Your task to perform on an android device: visit the assistant section in the google photos Image 0: 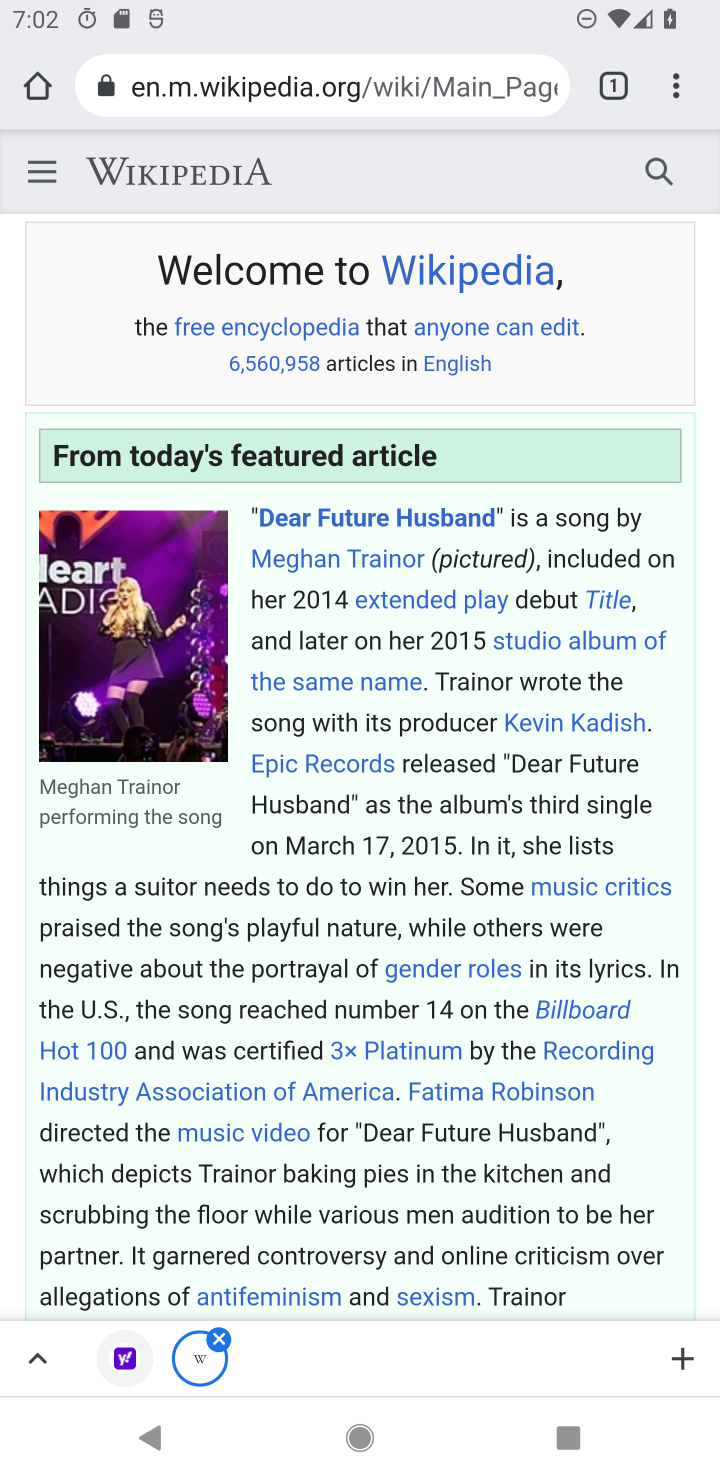
Step 0: drag from (344, 981) to (368, 386)
Your task to perform on an android device: visit the assistant section in the google photos Image 1: 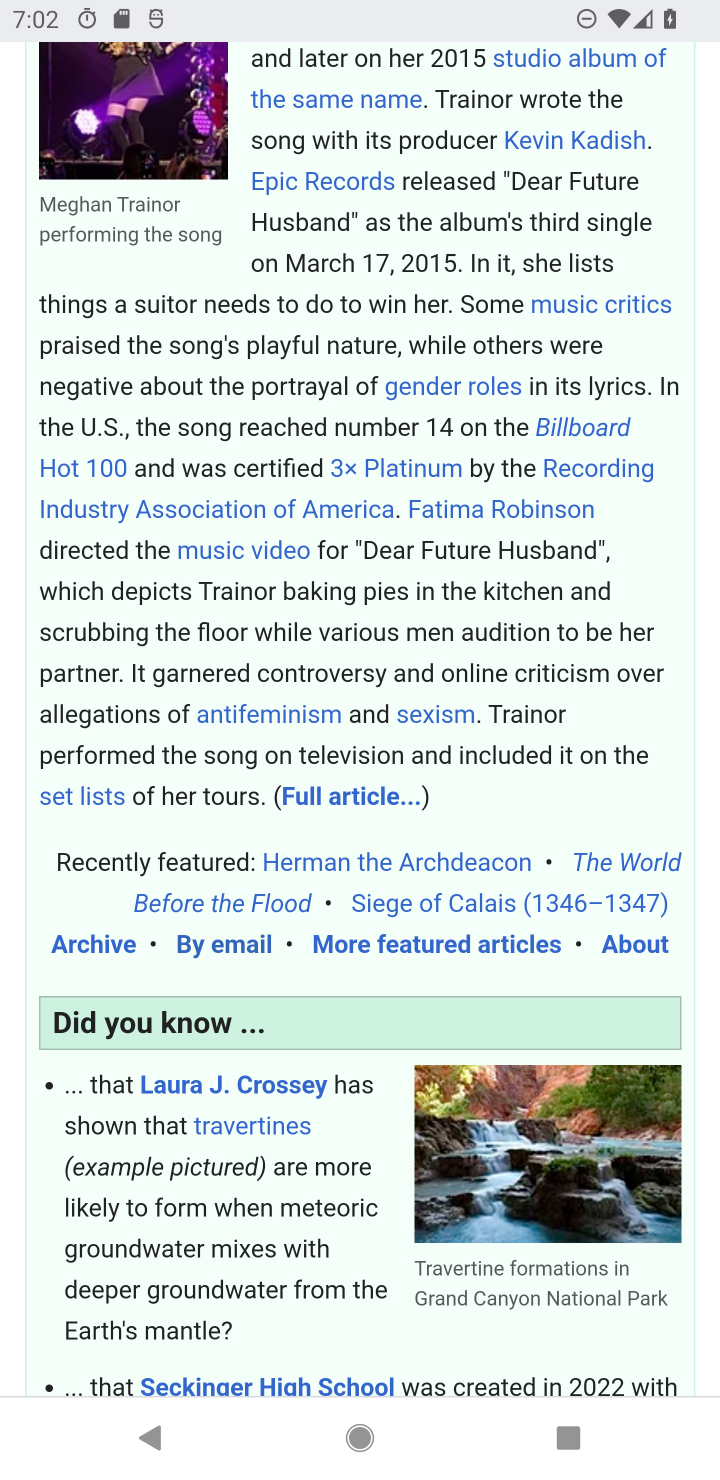
Step 1: drag from (367, 1054) to (488, 1434)
Your task to perform on an android device: visit the assistant section in the google photos Image 2: 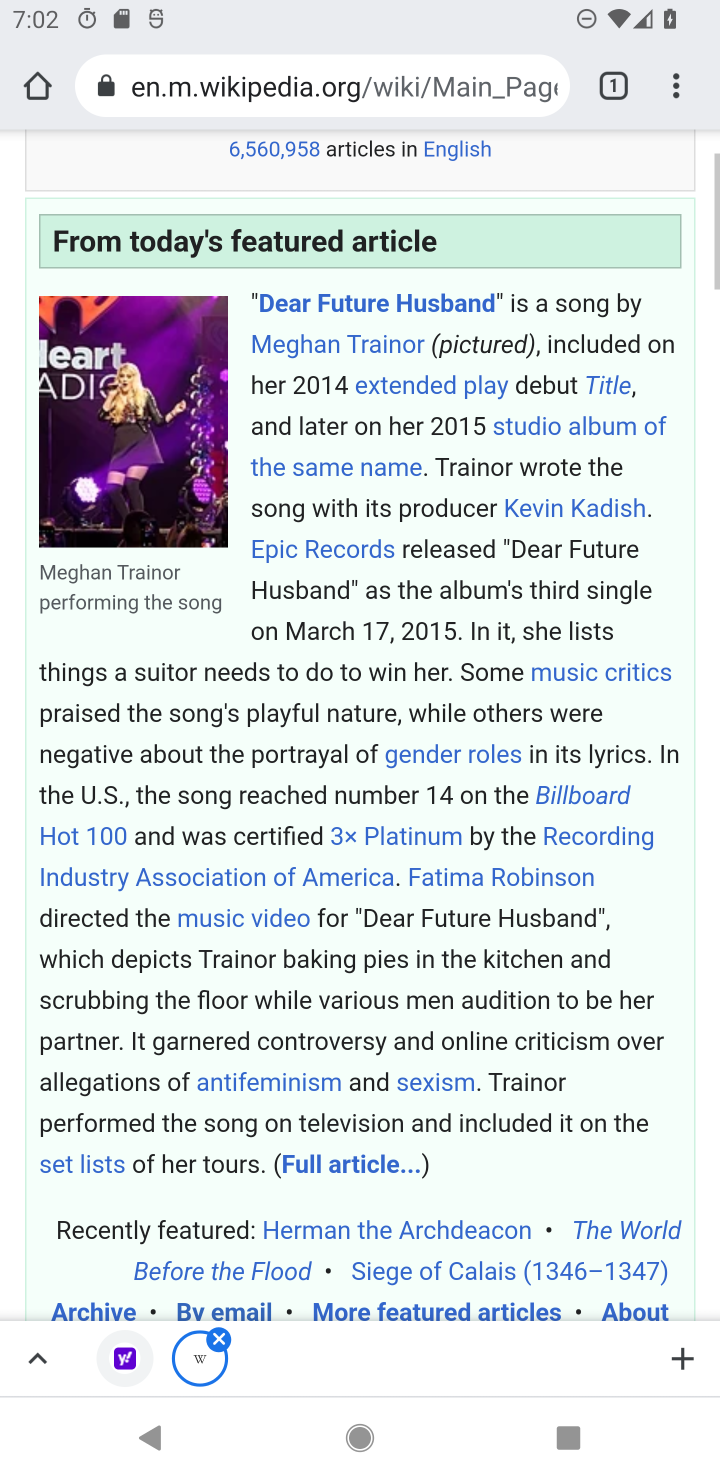
Step 2: press home button
Your task to perform on an android device: visit the assistant section in the google photos Image 3: 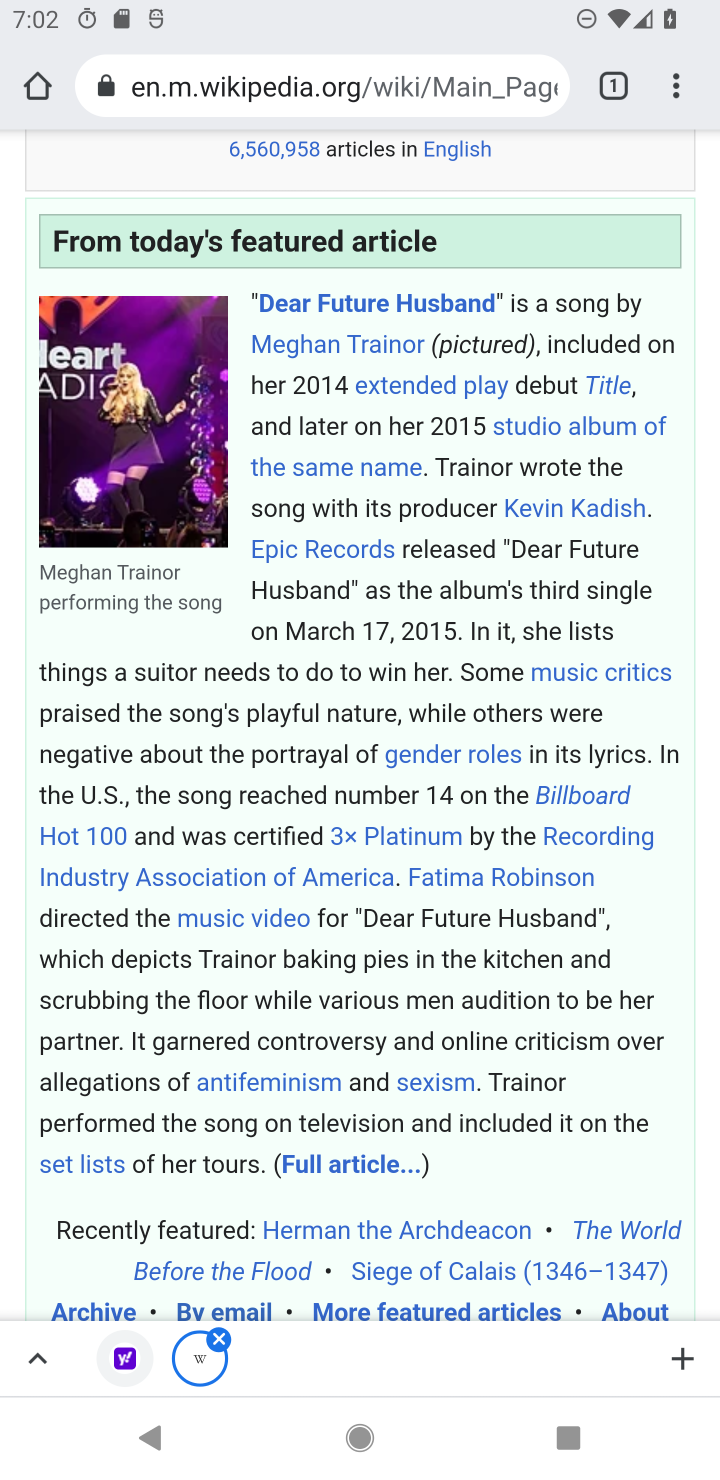
Step 3: click (696, 880)
Your task to perform on an android device: visit the assistant section in the google photos Image 4: 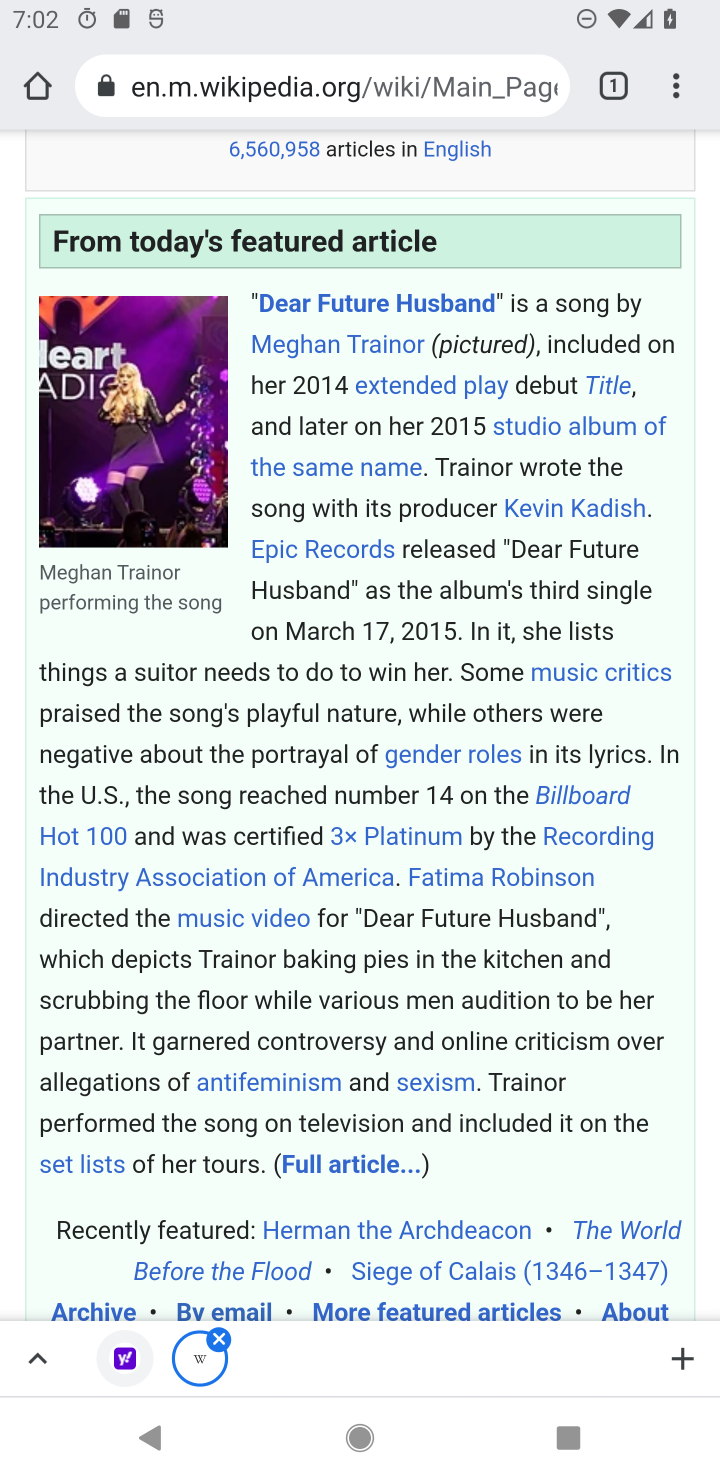
Step 4: drag from (407, 899) to (463, 131)
Your task to perform on an android device: visit the assistant section in the google photos Image 5: 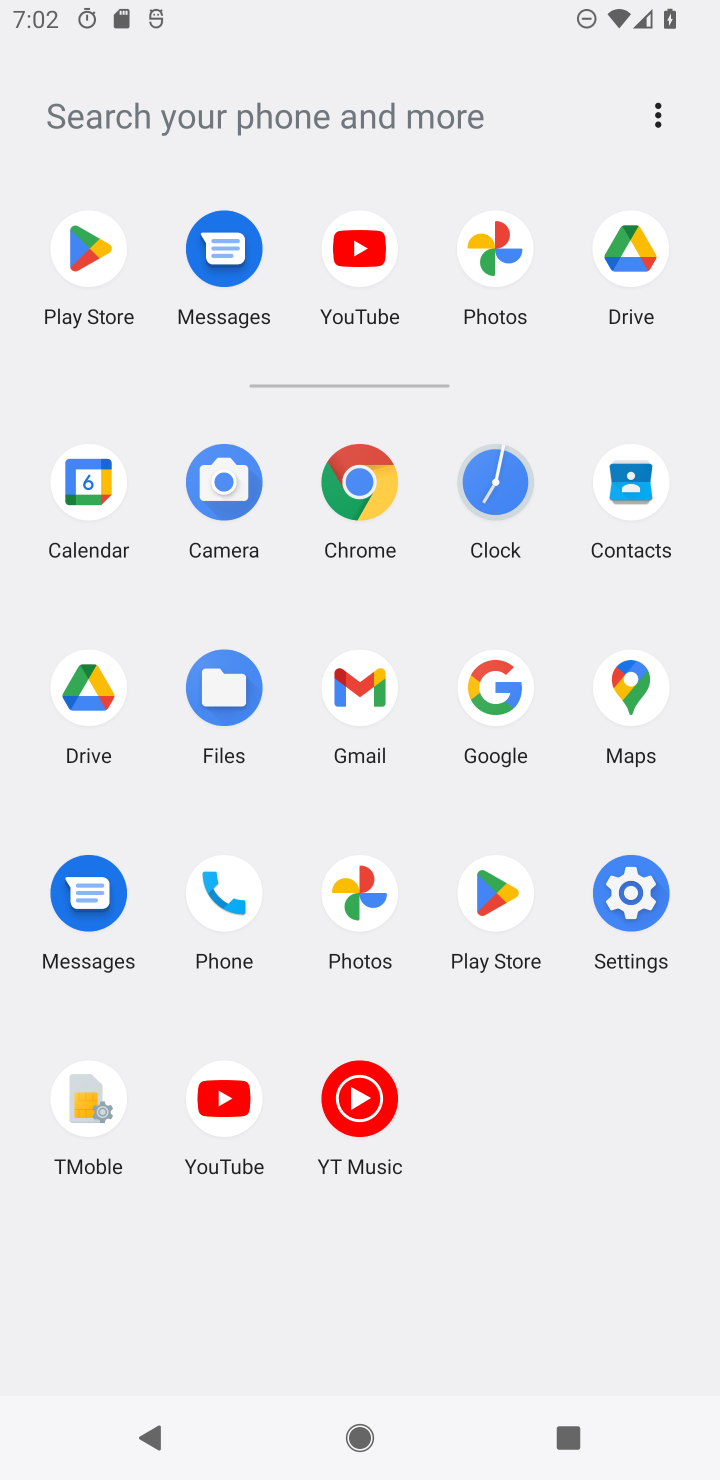
Step 5: drag from (405, 1139) to (469, 219)
Your task to perform on an android device: visit the assistant section in the google photos Image 6: 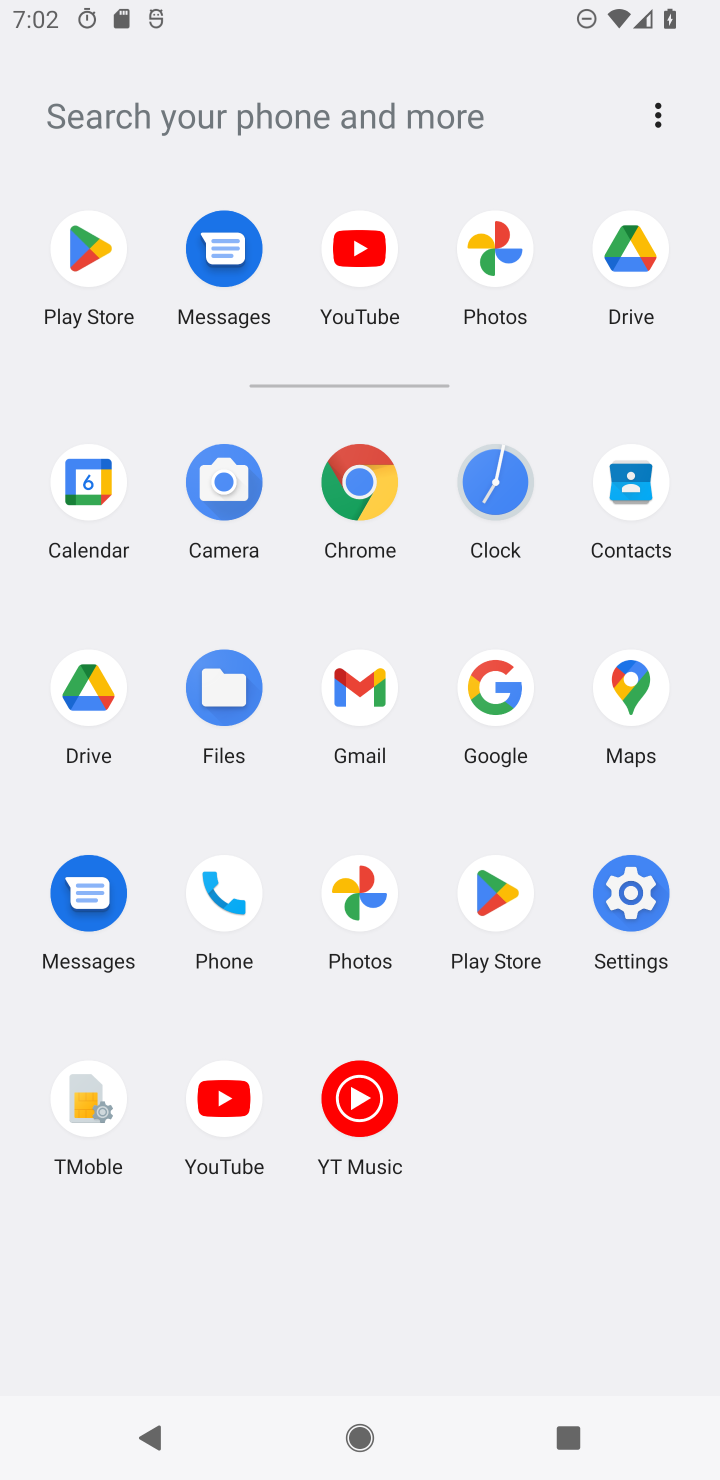
Step 6: click (348, 900)
Your task to perform on an android device: visit the assistant section in the google photos Image 7: 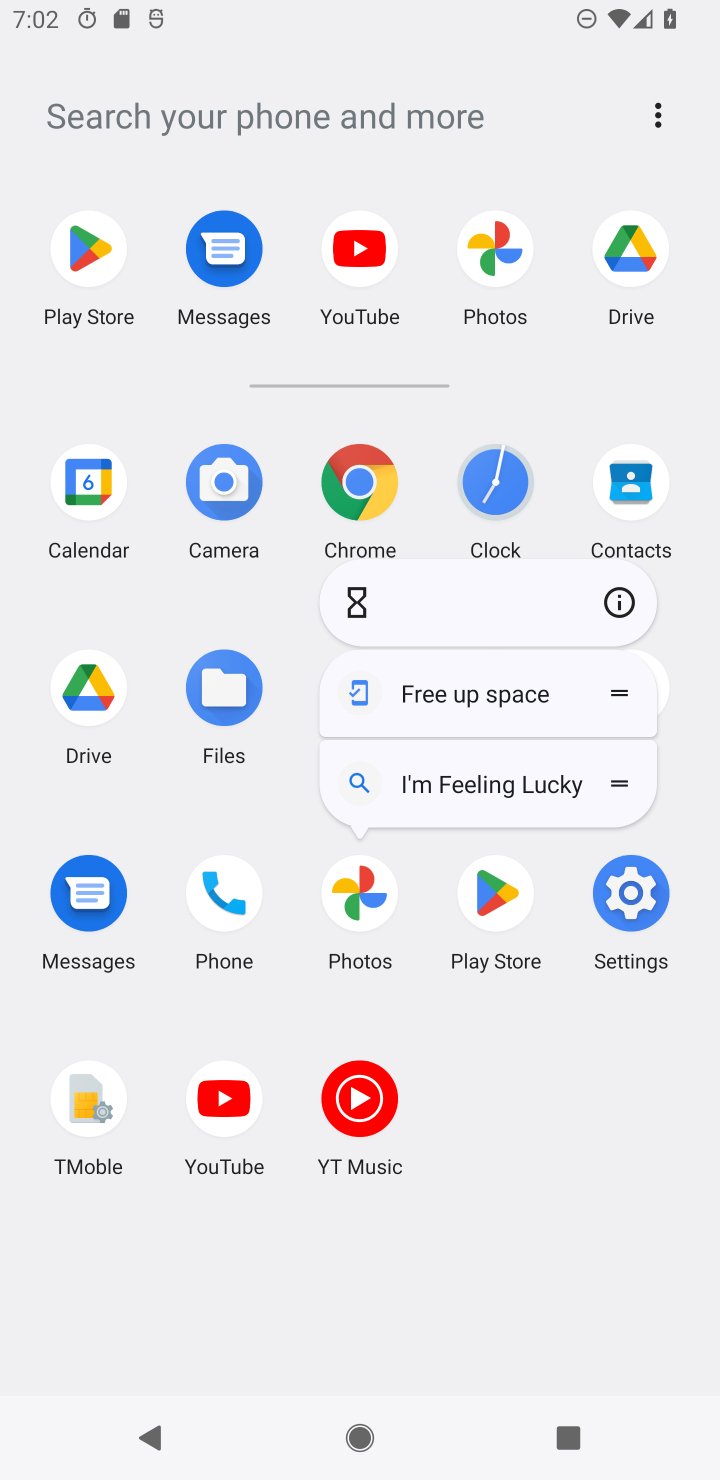
Step 7: click (606, 599)
Your task to perform on an android device: visit the assistant section in the google photos Image 8: 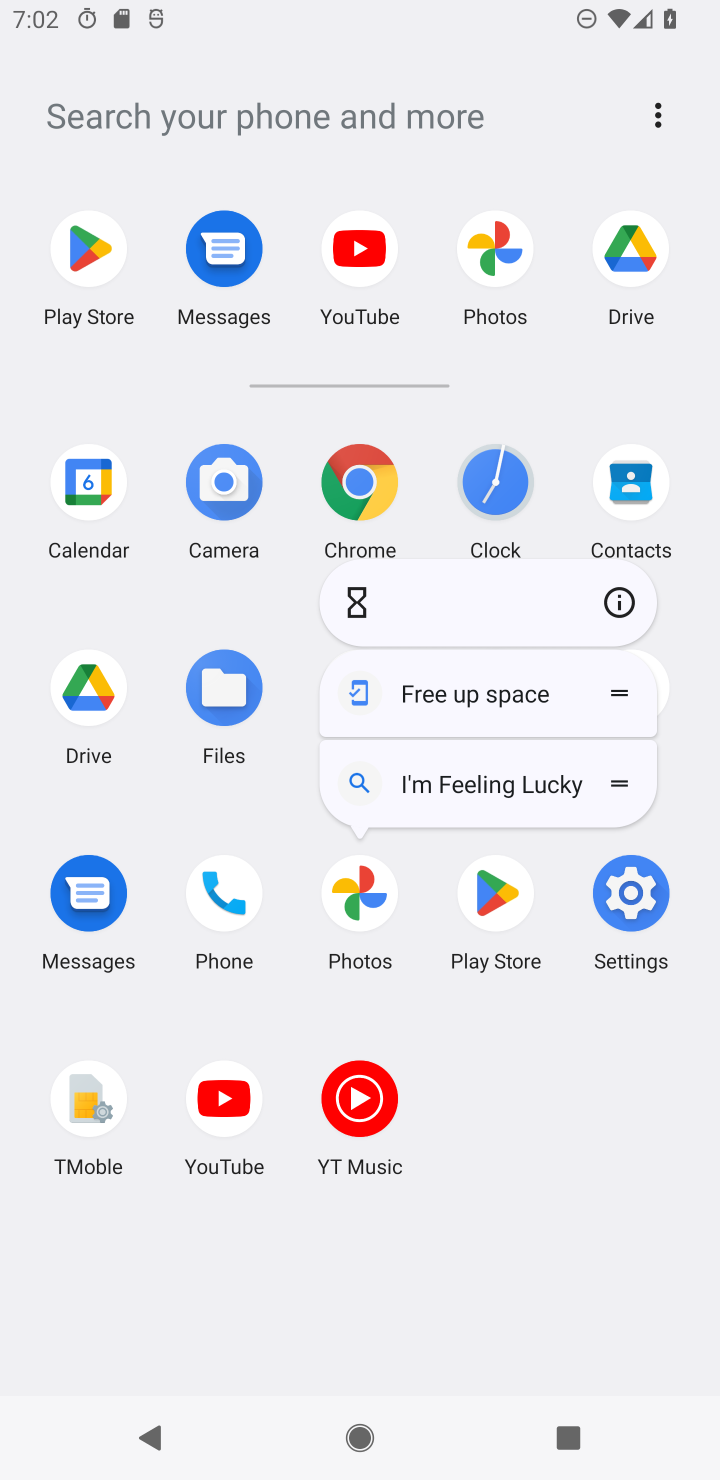
Step 8: click (622, 610)
Your task to perform on an android device: visit the assistant section in the google photos Image 9: 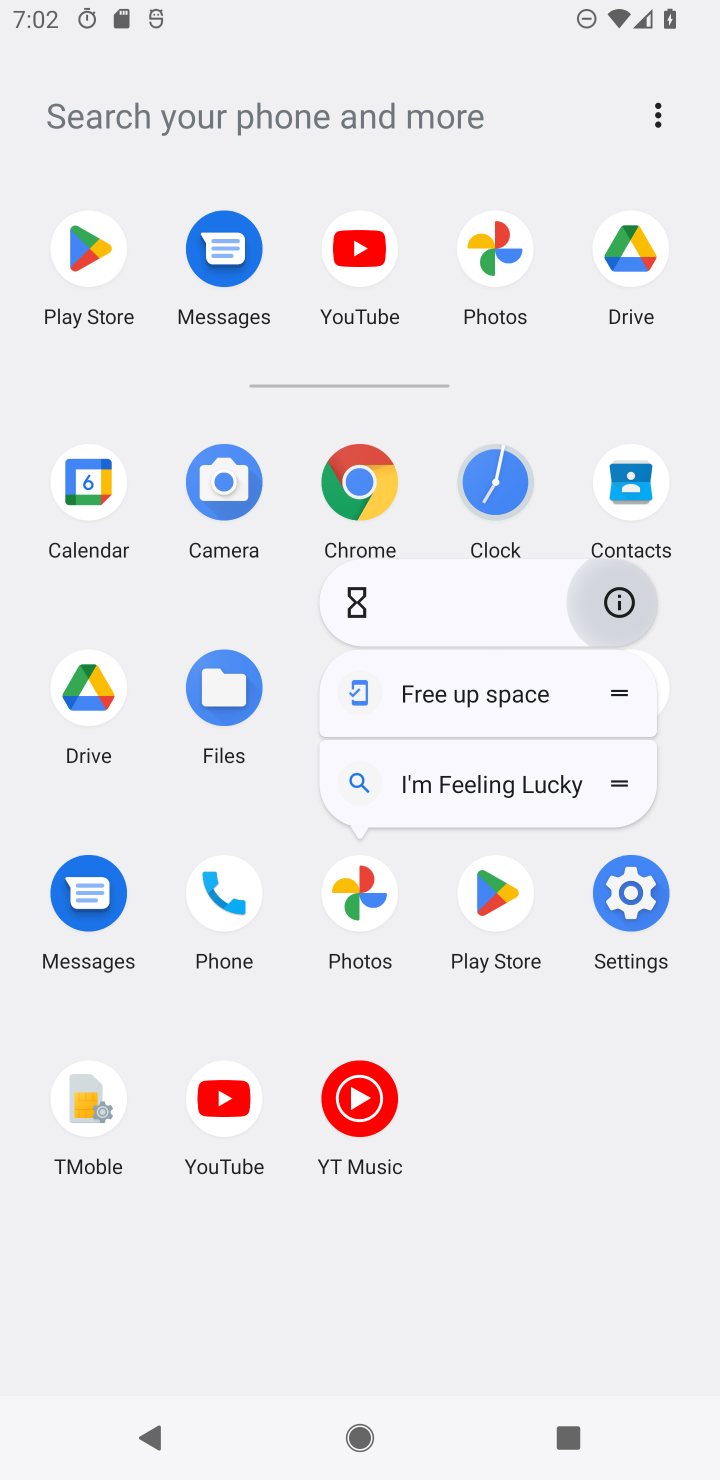
Step 9: click (622, 608)
Your task to perform on an android device: visit the assistant section in the google photos Image 10: 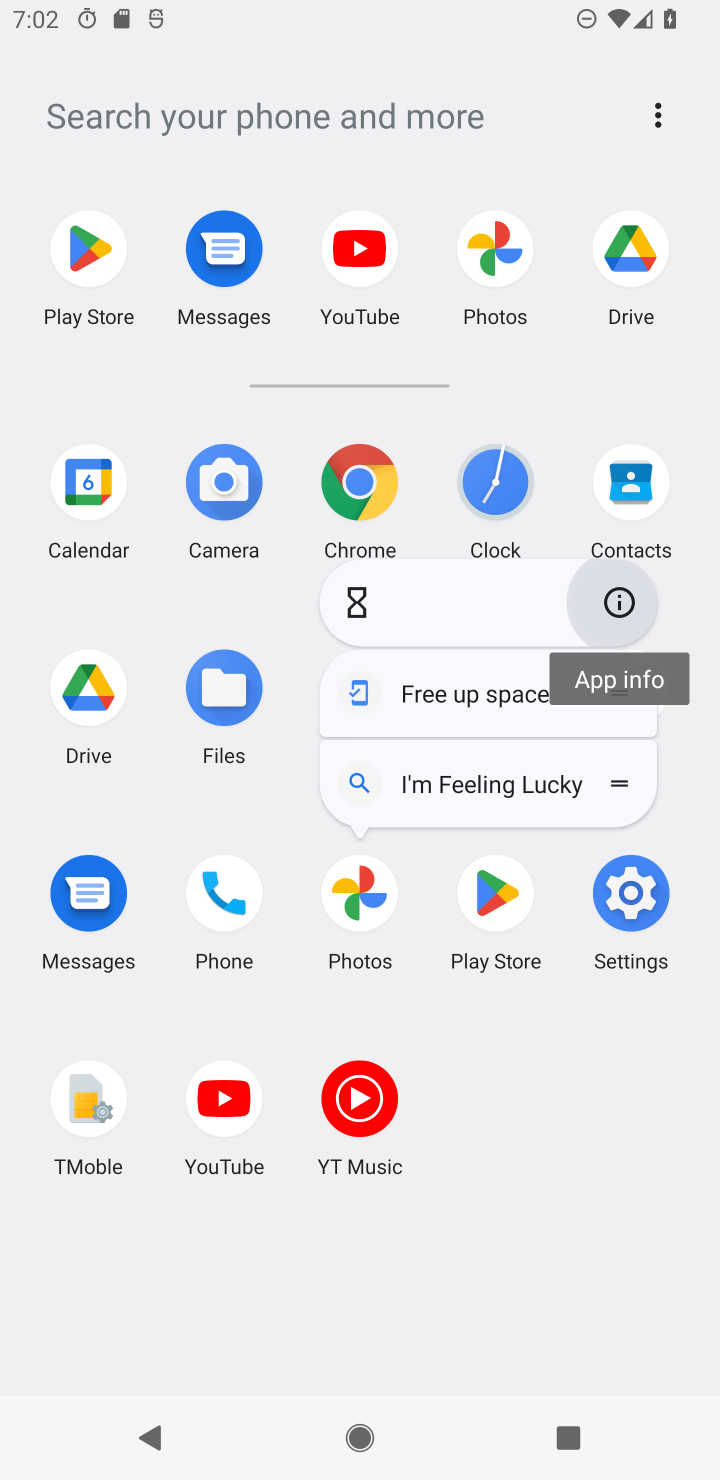
Step 10: click (353, 866)
Your task to perform on an android device: visit the assistant section in the google photos Image 11: 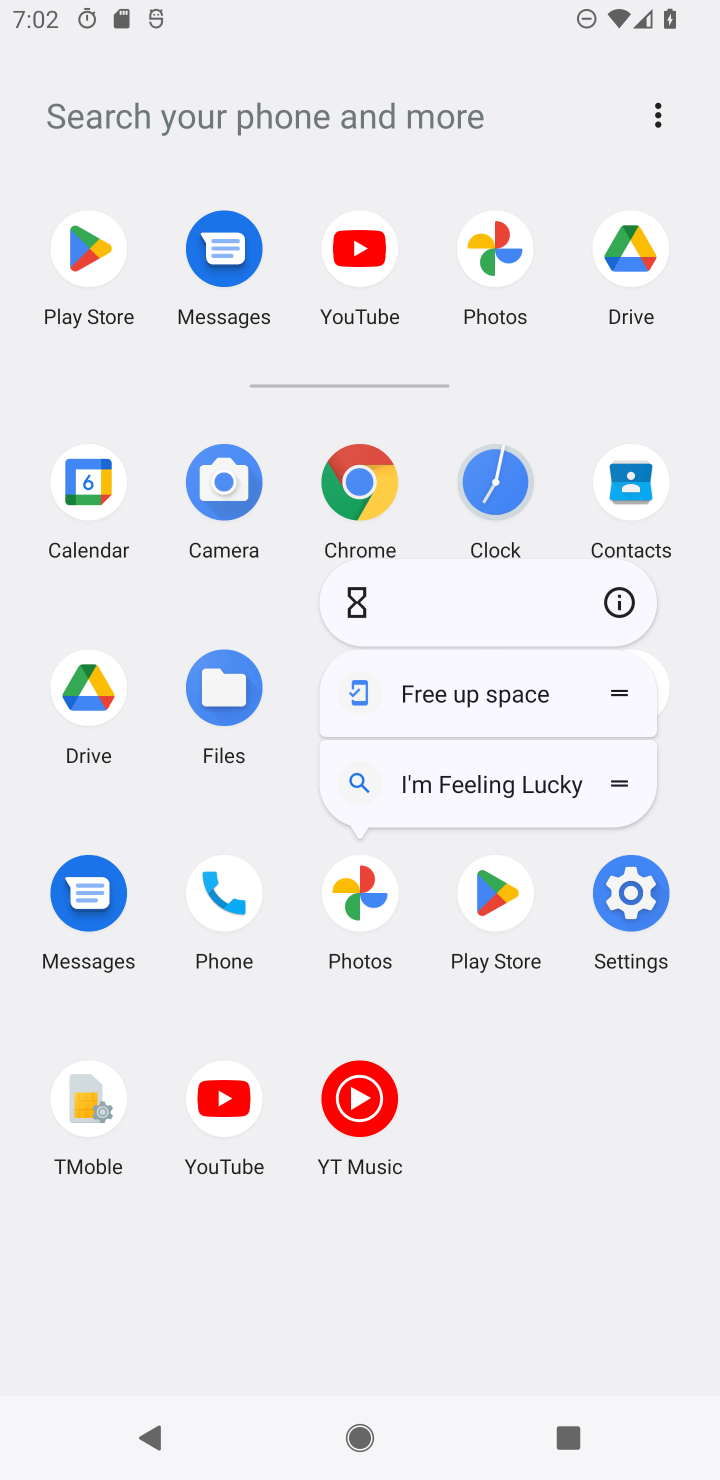
Step 11: click (357, 872)
Your task to perform on an android device: visit the assistant section in the google photos Image 12: 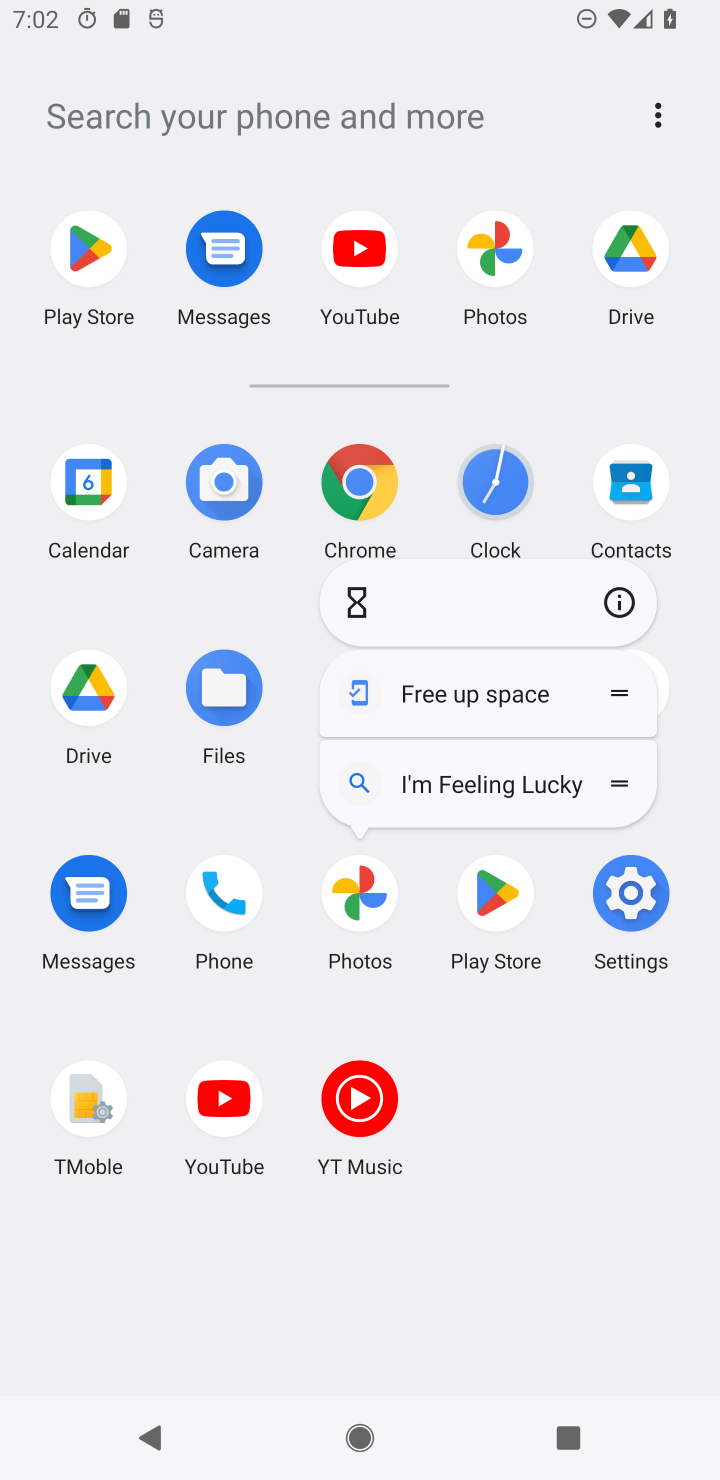
Step 12: click (631, 597)
Your task to perform on an android device: visit the assistant section in the google photos Image 13: 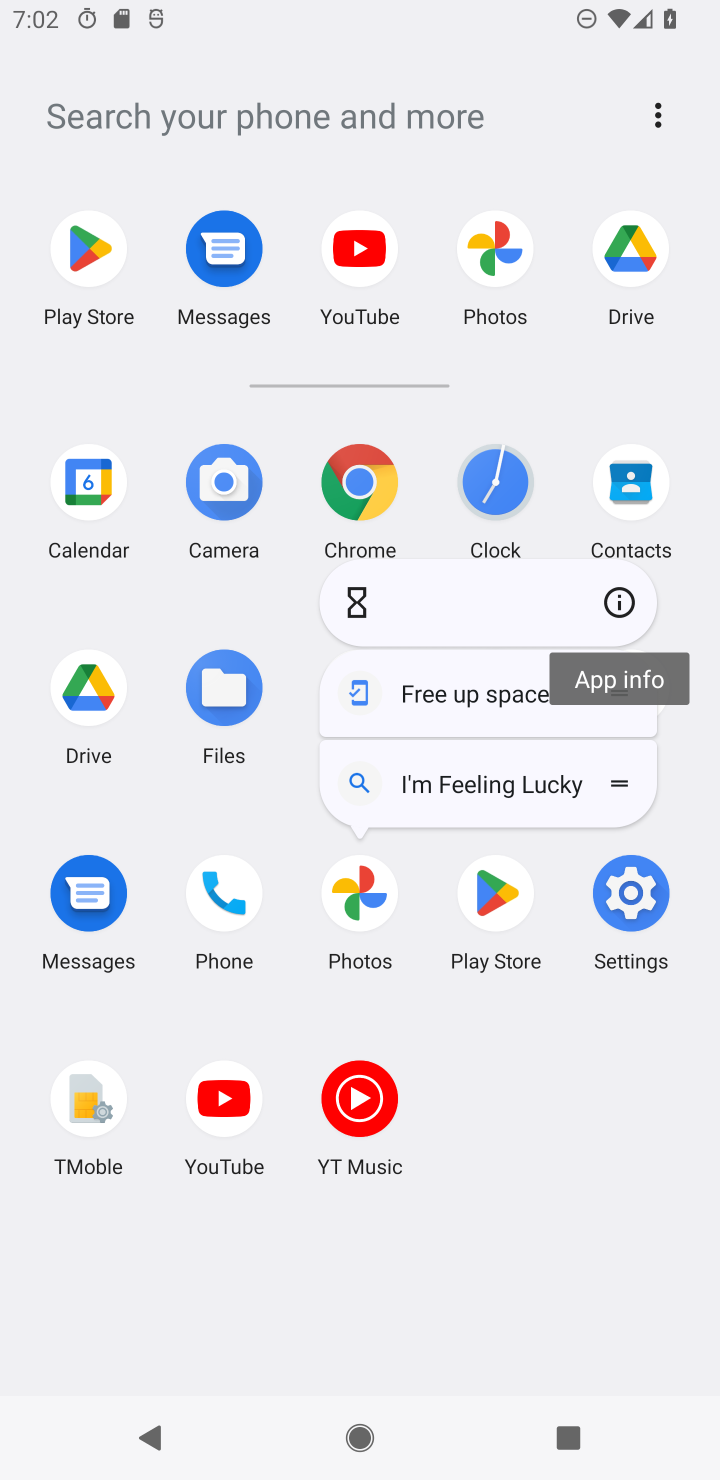
Step 13: click (608, 601)
Your task to perform on an android device: visit the assistant section in the google photos Image 14: 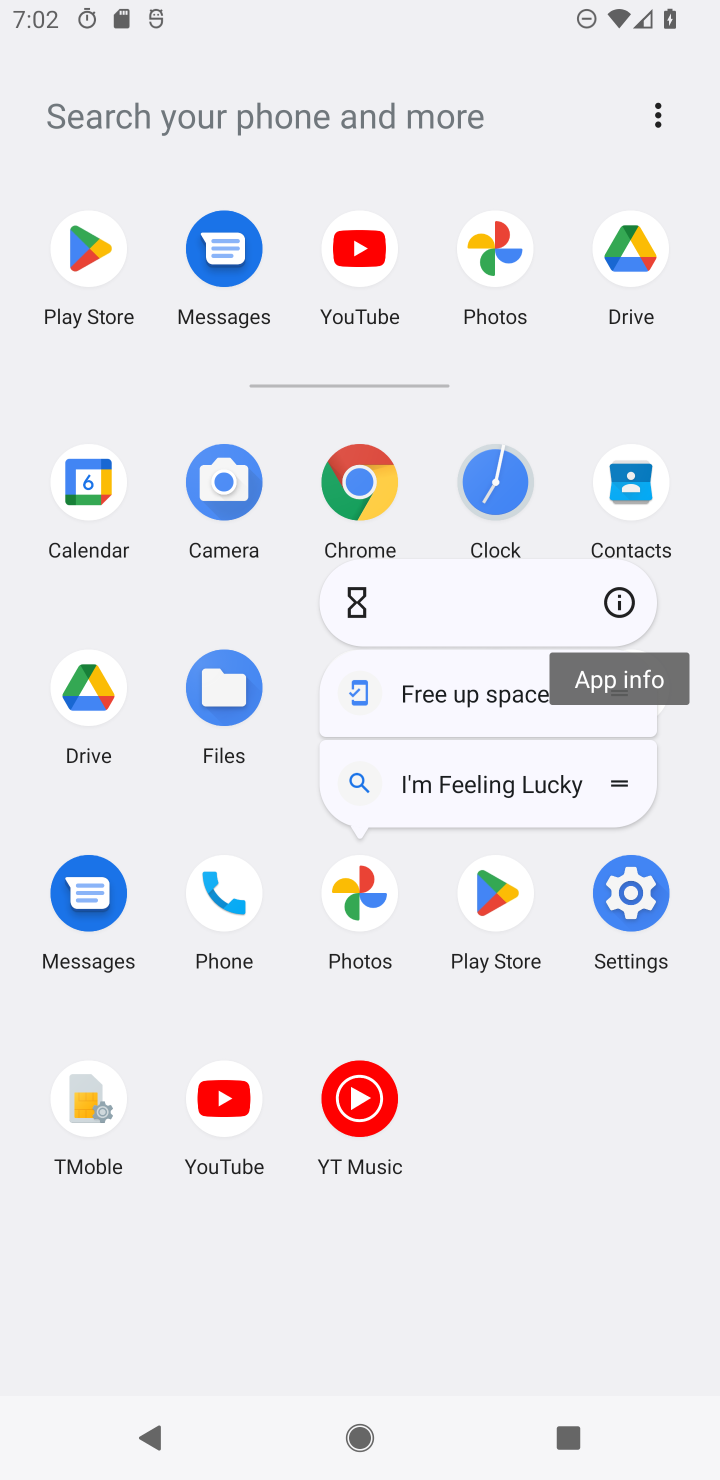
Step 14: click (359, 903)
Your task to perform on an android device: visit the assistant section in the google photos Image 15: 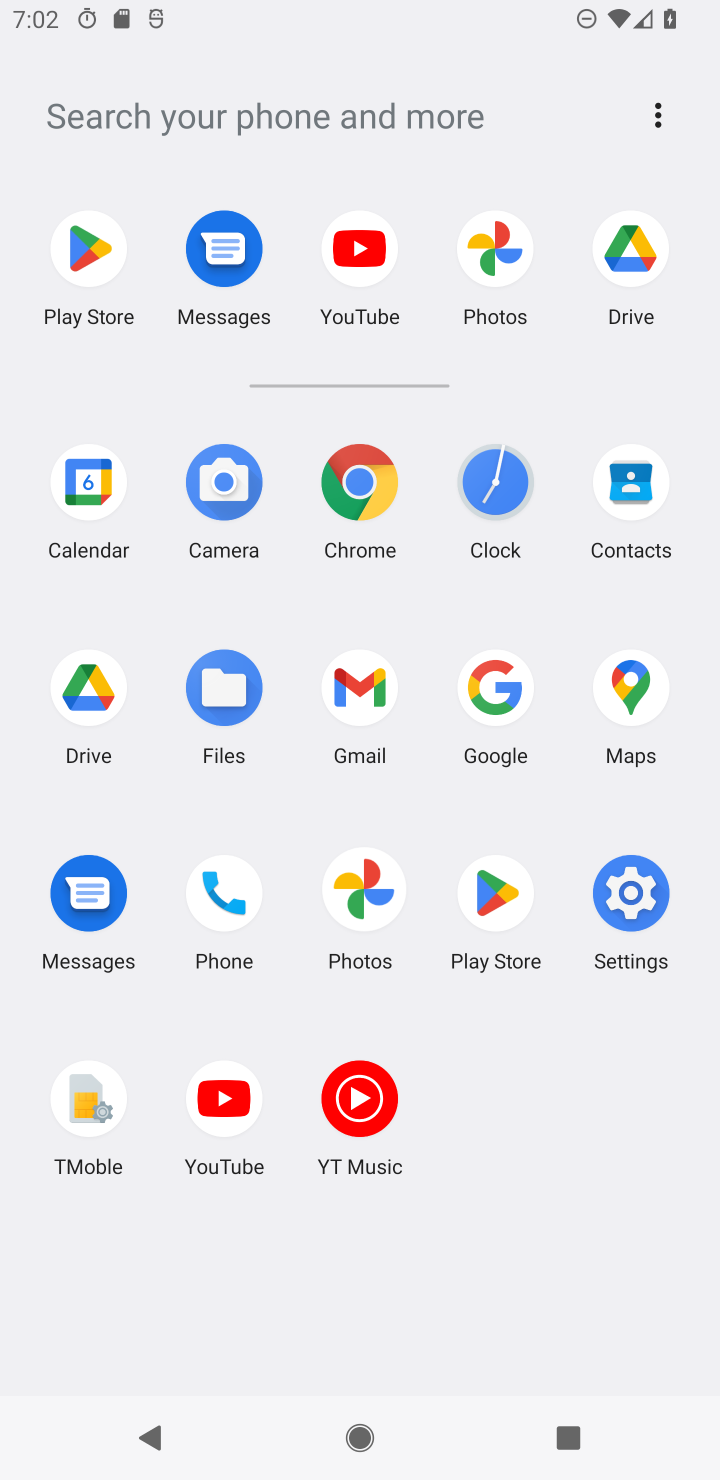
Step 15: click (365, 897)
Your task to perform on an android device: visit the assistant section in the google photos Image 16: 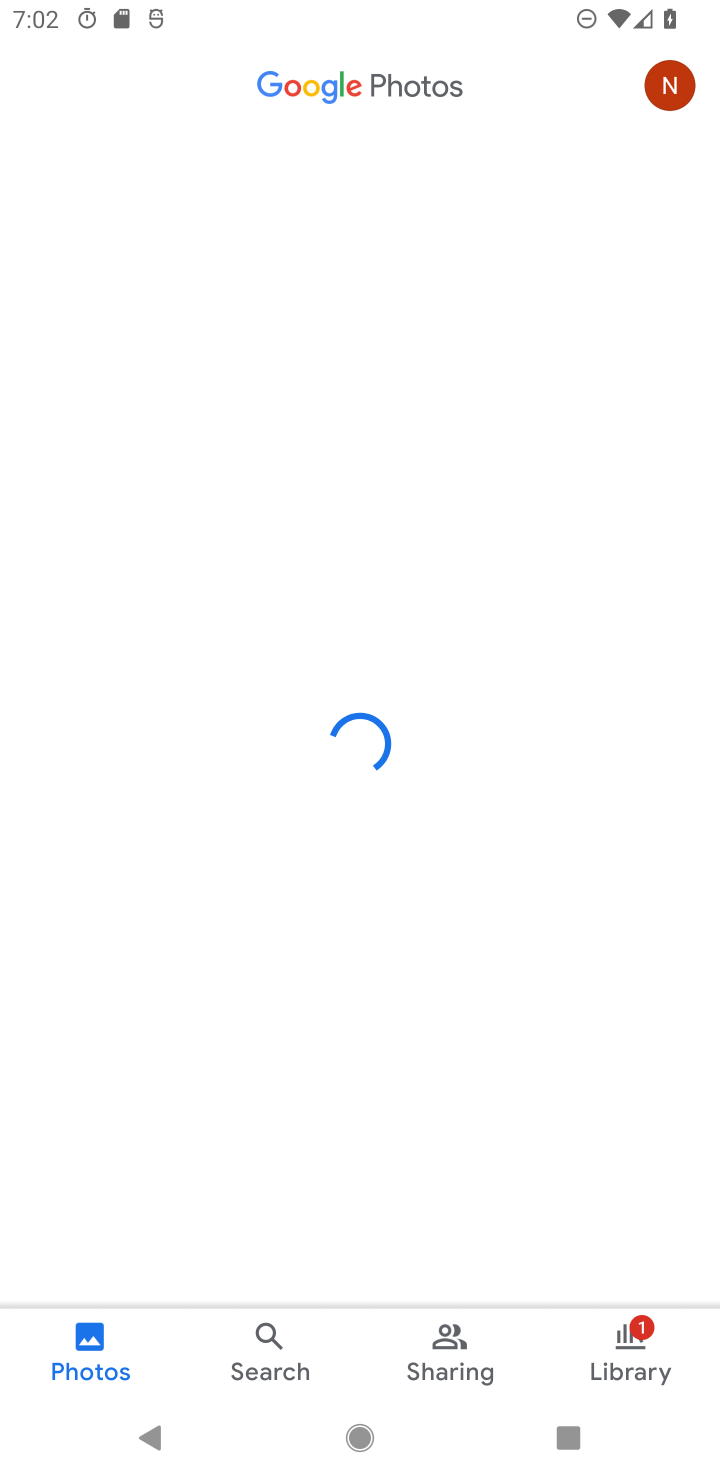
Step 16: drag from (410, 902) to (430, 477)
Your task to perform on an android device: visit the assistant section in the google photos Image 17: 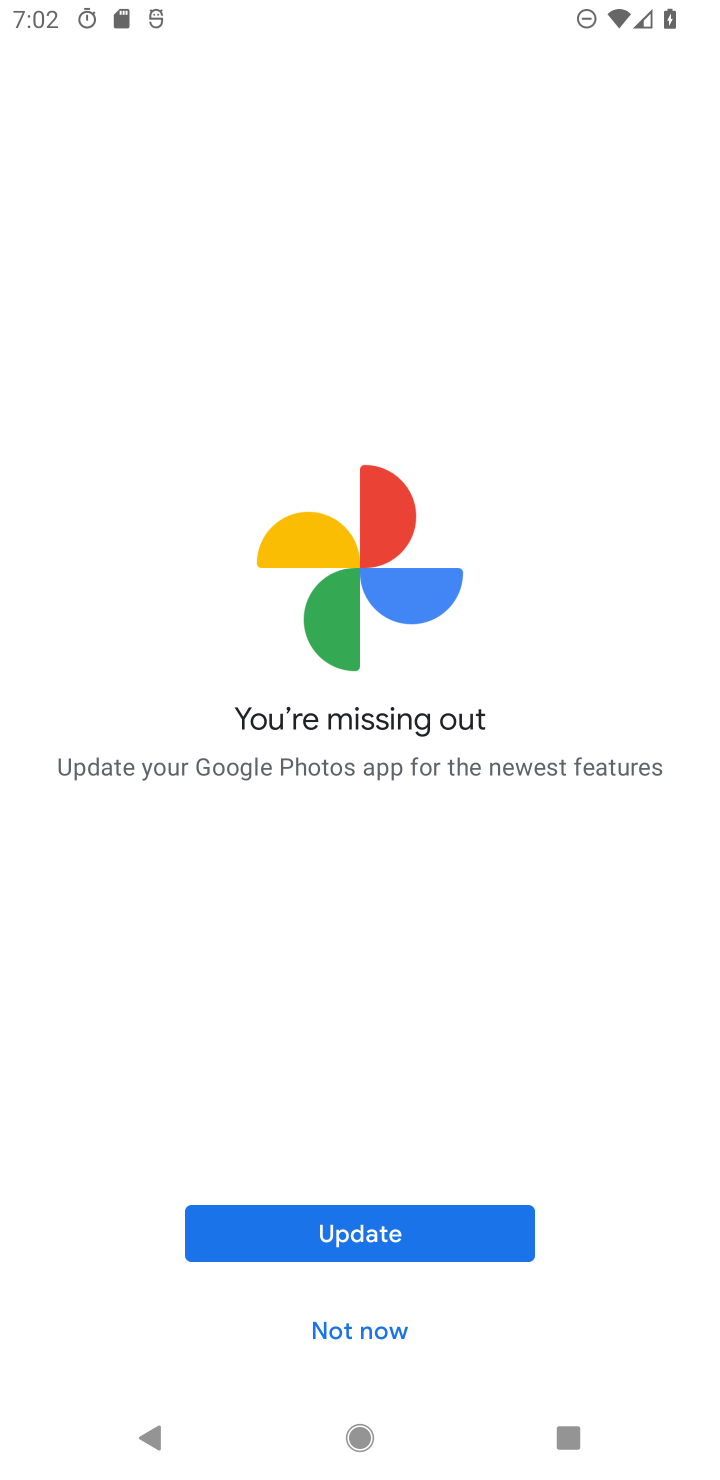
Step 17: drag from (416, 892) to (493, 1173)
Your task to perform on an android device: visit the assistant section in the google photos Image 18: 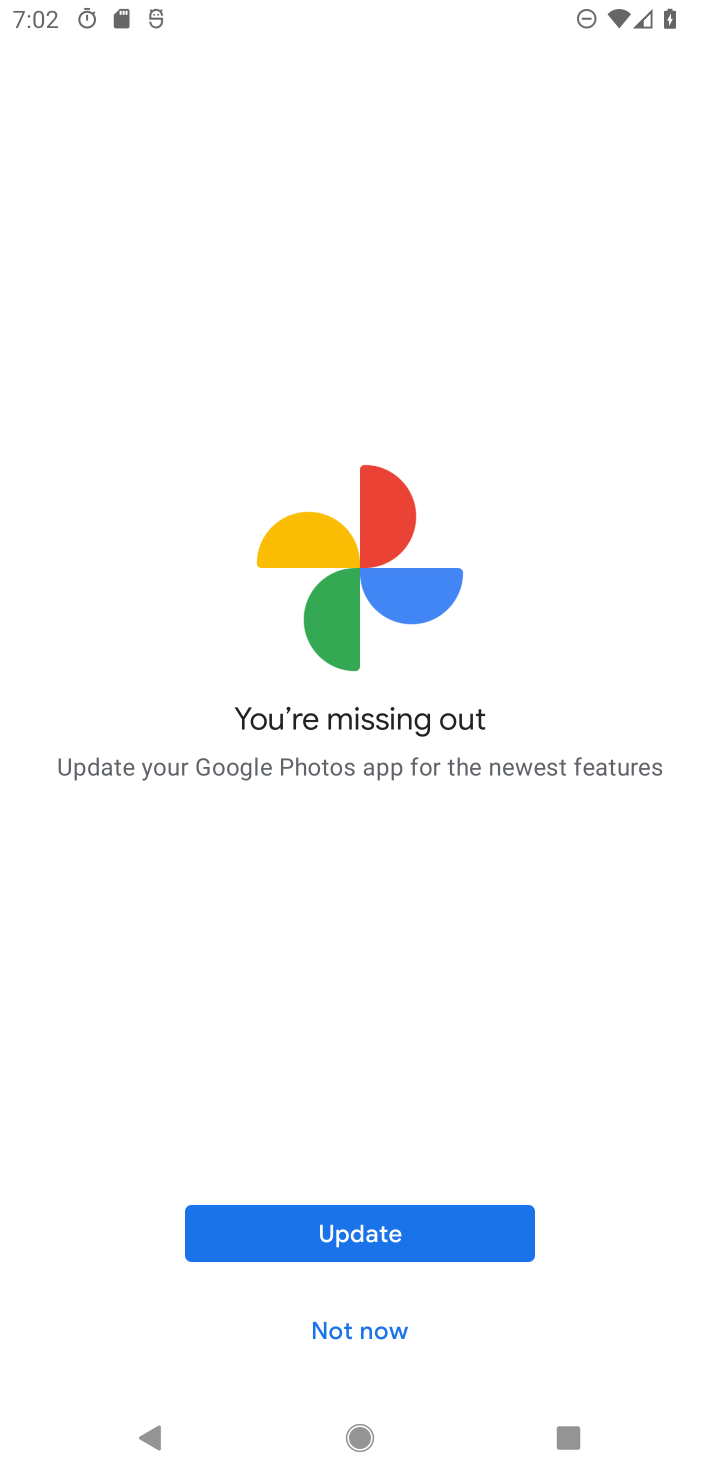
Step 18: drag from (473, 1082) to (461, 295)
Your task to perform on an android device: visit the assistant section in the google photos Image 19: 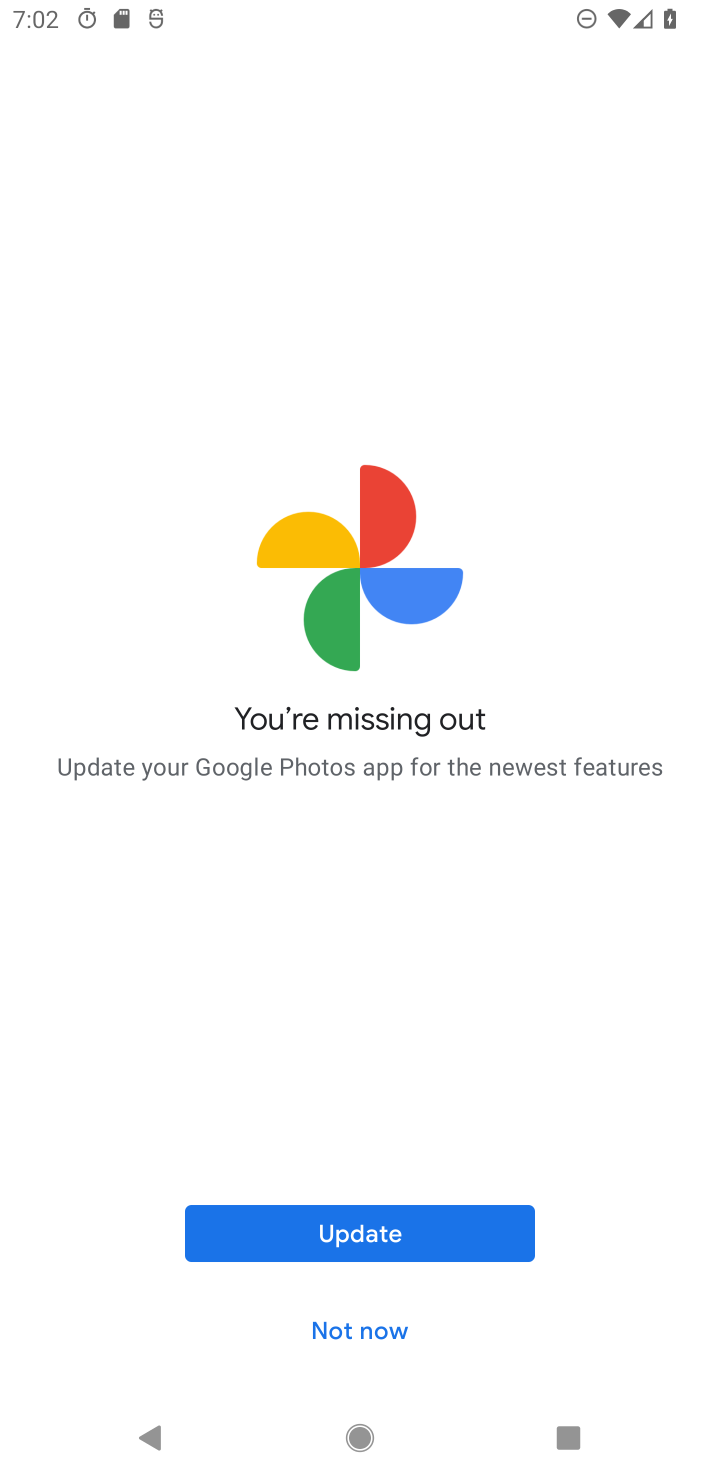
Step 19: drag from (558, 991) to (604, 486)
Your task to perform on an android device: visit the assistant section in the google photos Image 20: 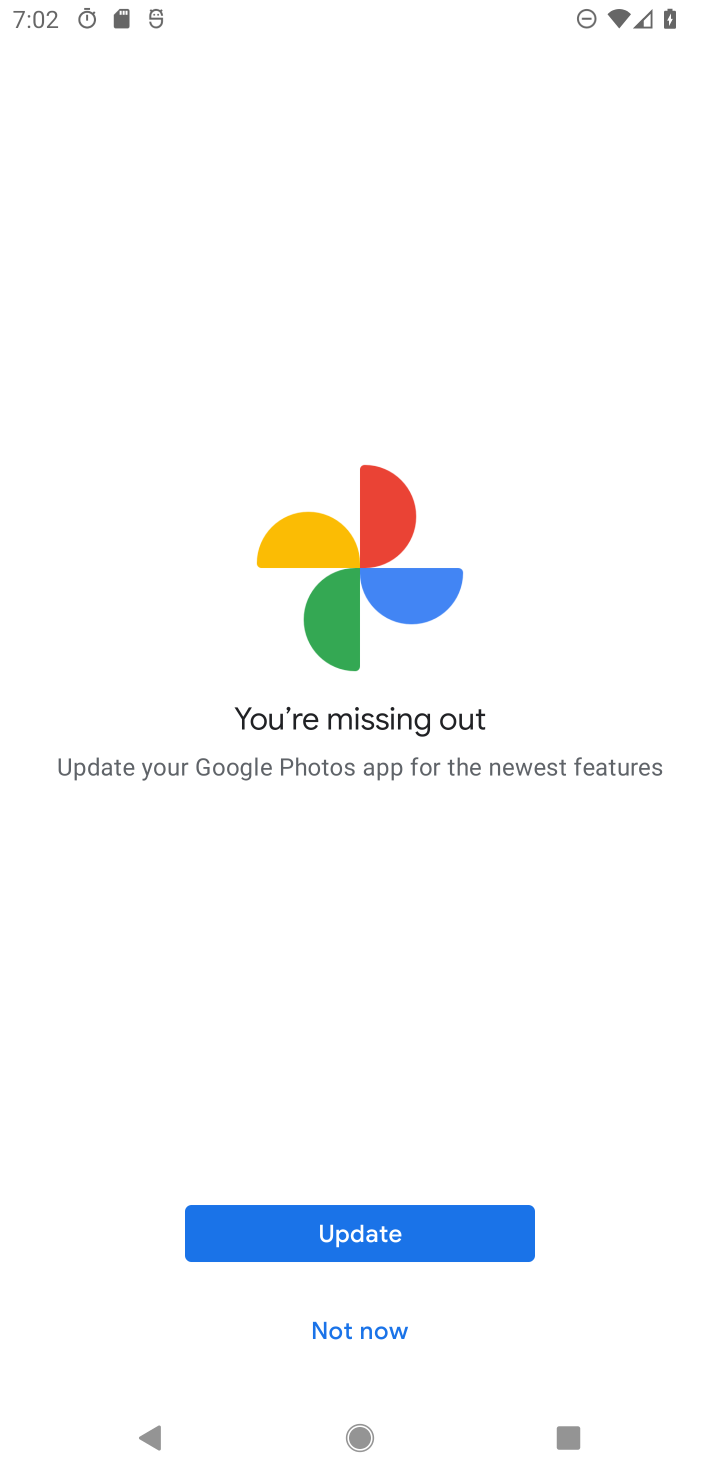
Step 20: click (318, 1331)
Your task to perform on an android device: visit the assistant section in the google photos Image 21: 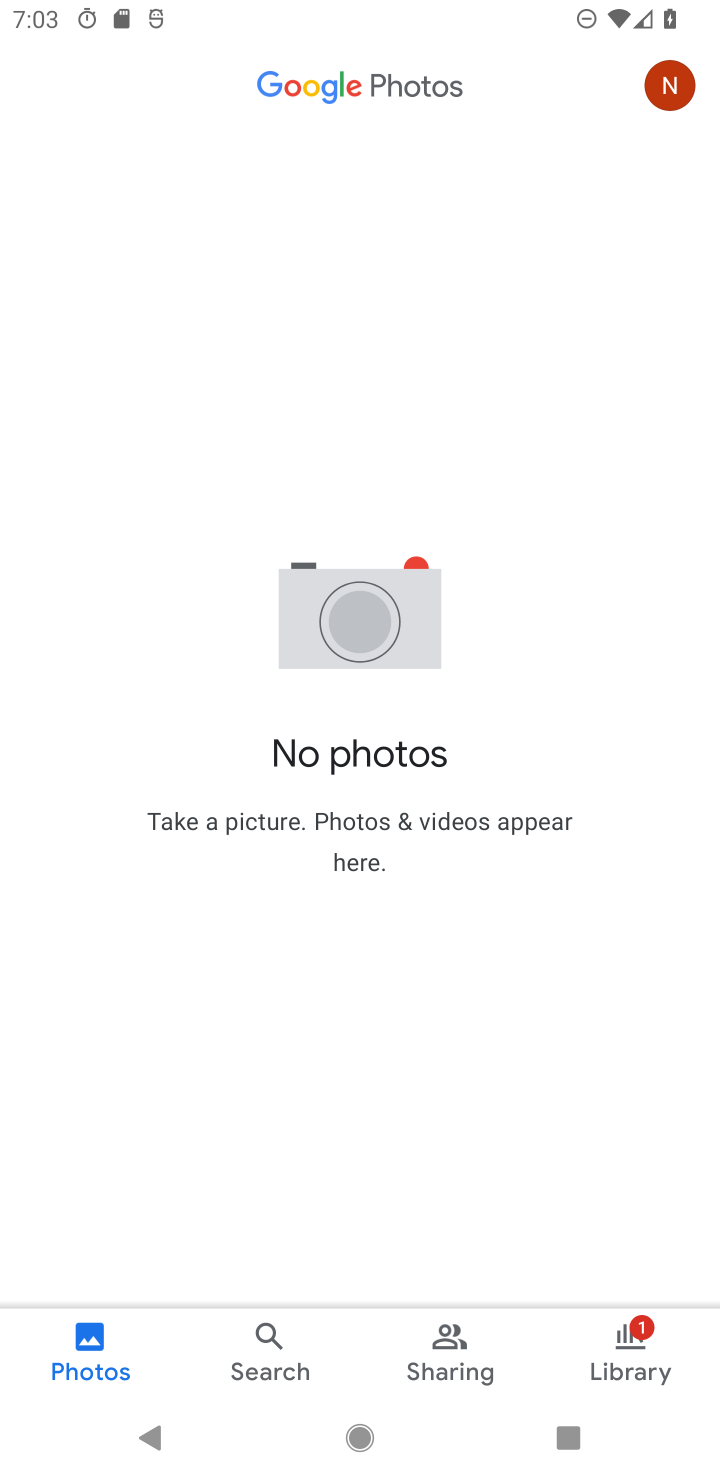
Step 21: task complete